Your task to perform on an android device: toggle improve location accuracy Image 0: 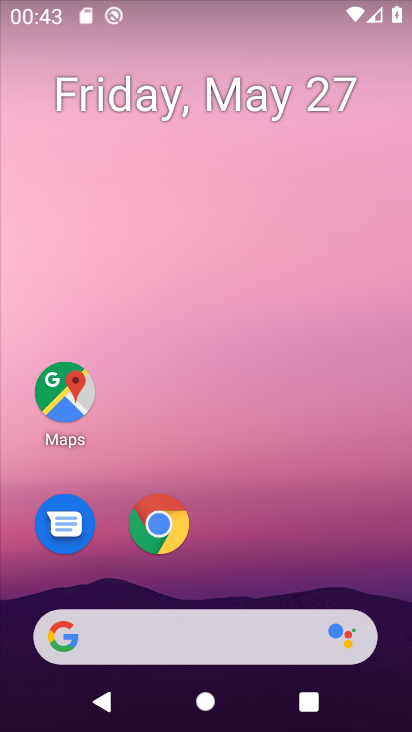
Step 0: drag from (299, 540) to (271, 50)
Your task to perform on an android device: toggle improve location accuracy Image 1: 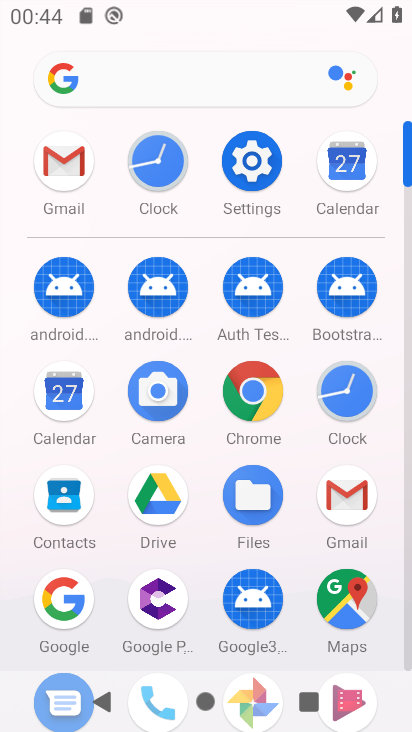
Step 1: click (252, 166)
Your task to perform on an android device: toggle improve location accuracy Image 2: 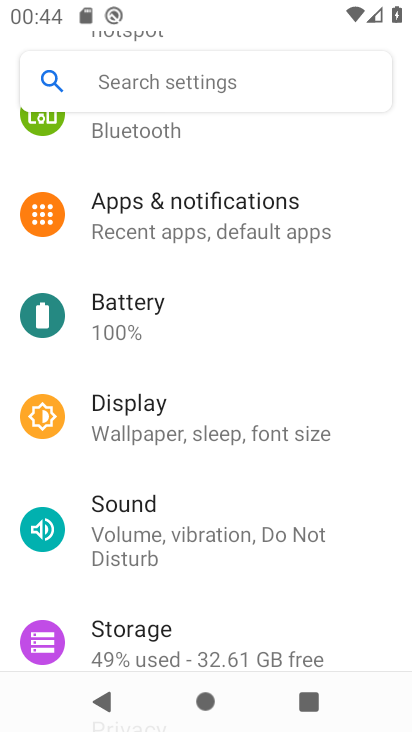
Step 2: drag from (275, 598) to (227, 122)
Your task to perform on an android device: toggle improve location accuracy Image 3: 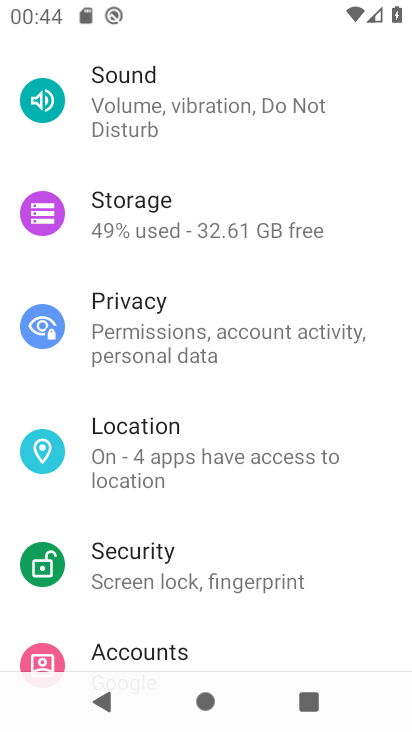
Step 3: click (222, 443)
Your task to perform on an android device: toggle improve location accuracy Image 4: 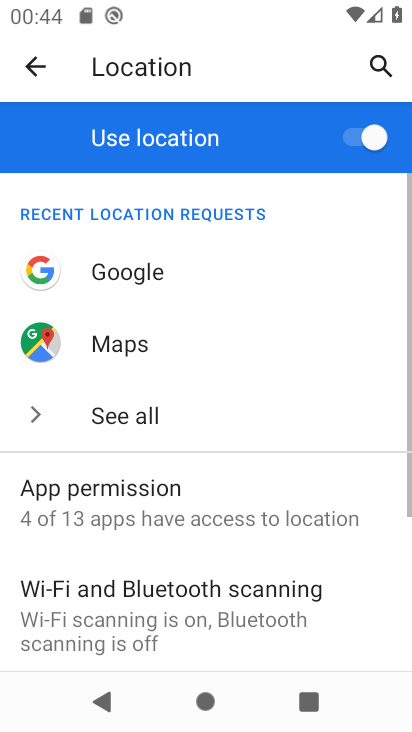
Step 4: drag from (246, 592) to (237, 201)
Your task to perform on an android device: toggle improve location accuracy Image 5: 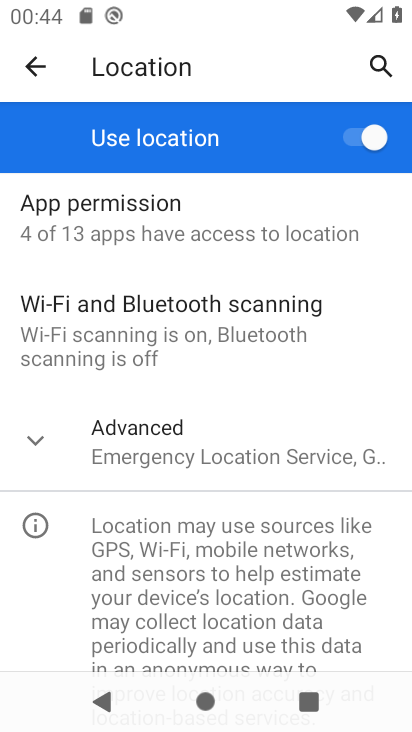
Step 5: click (32, 431)
Your task to perform on an android device: toggle improve location accuracy Image 6: 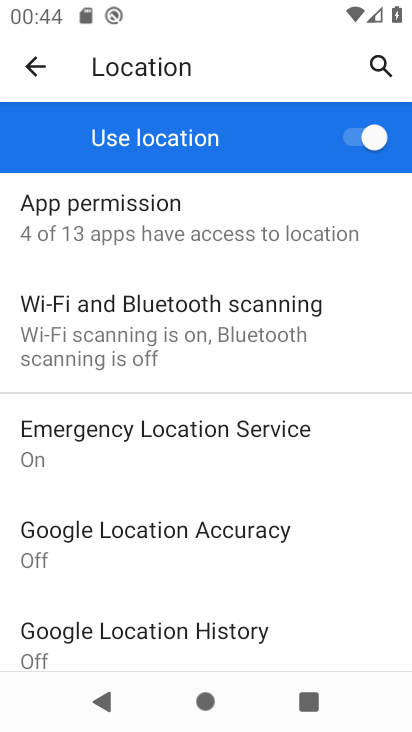
Step 6: click (202, 550)
Your task to perform on an android device: toggle improve location accuracy Image 7: 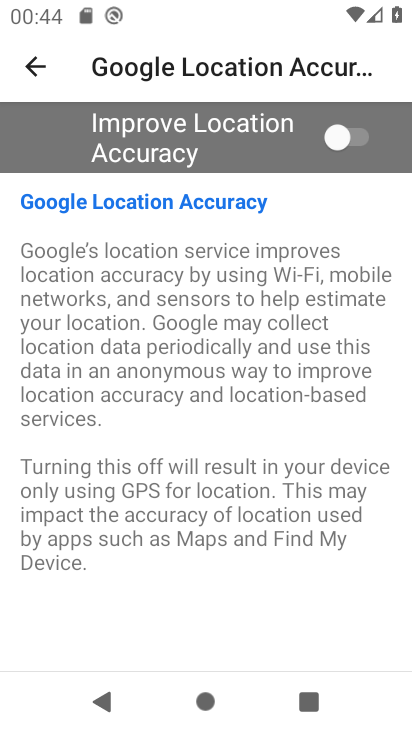
Step 7: click (352, 128)
Your task to perform on an android device: toggle improve location accuracy Image 8: 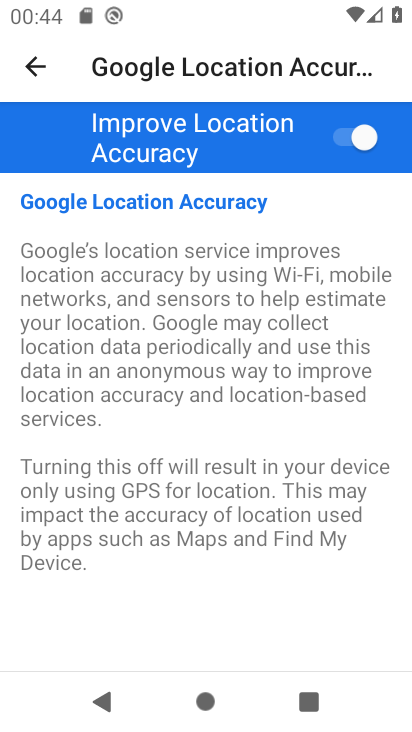
Step 8: task complete